Your task to perform on an android device: create a new album in the google photos Image 0: 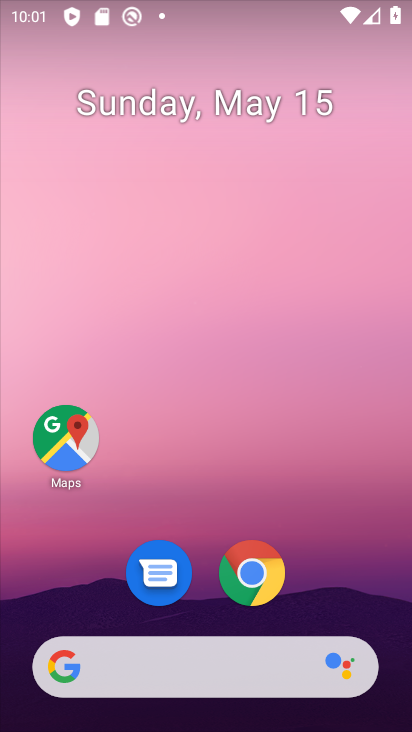
Step 0: drag from (191, 515) to (203, 233)
Your task to perform on an android device: create a new album in the google photos Image 1: 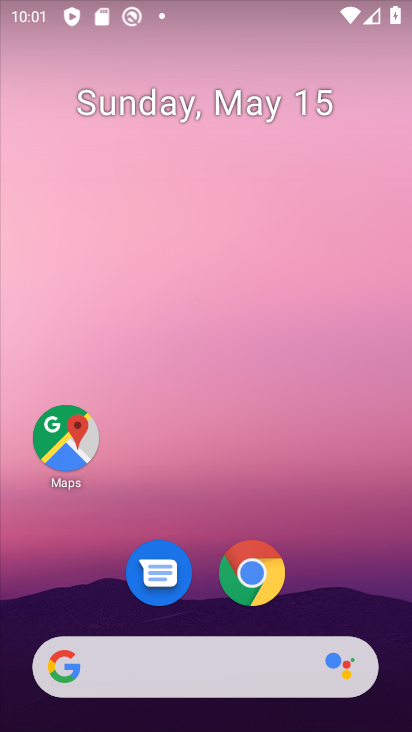
Step 1: drag from (214, 306) to (228, 204)
Your task to perform on an android device: create a new album in the google photos Image 2: 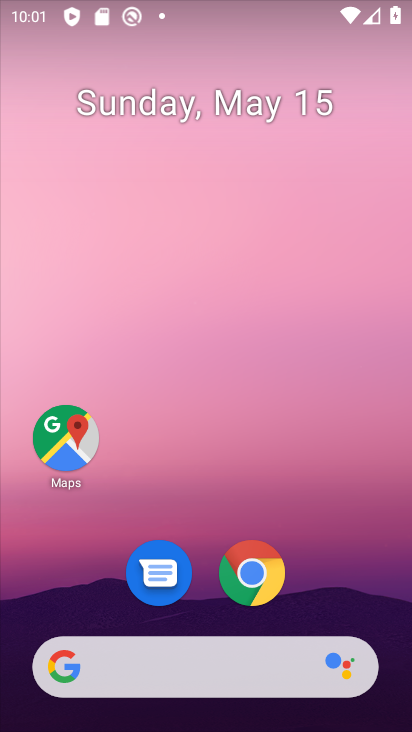
Step 2: drag from (219, 595) to (215, 153)
Your task to perform on an android device: create a new album in the google photos Image 3: 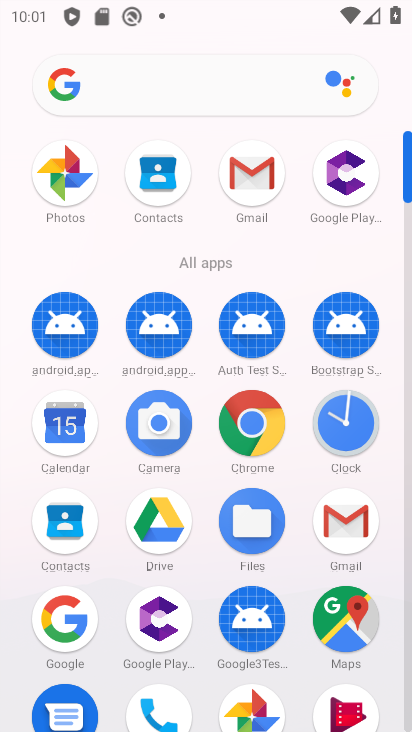
Step 3: click (74, 178)
Your task to perform on an android device: create a new album in the google photos Image 4: 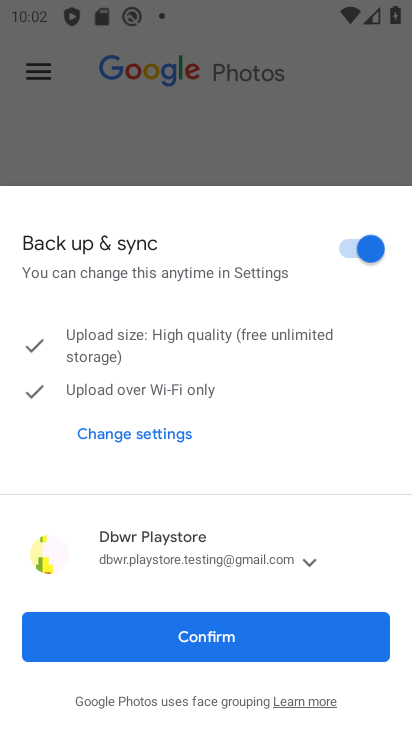
Step 4: click (193, 646)
Your task to perform on an android device: create a new album in the google photos Image 5: 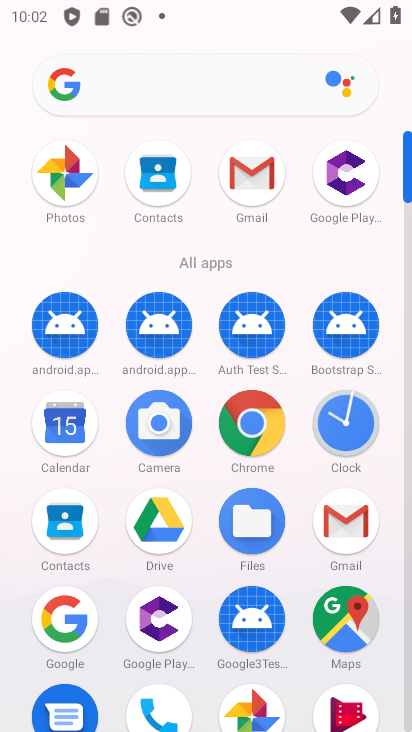
Step 5: click (255, 716)
Your task to perform on an android device: create a new album in the google photos Image 6: 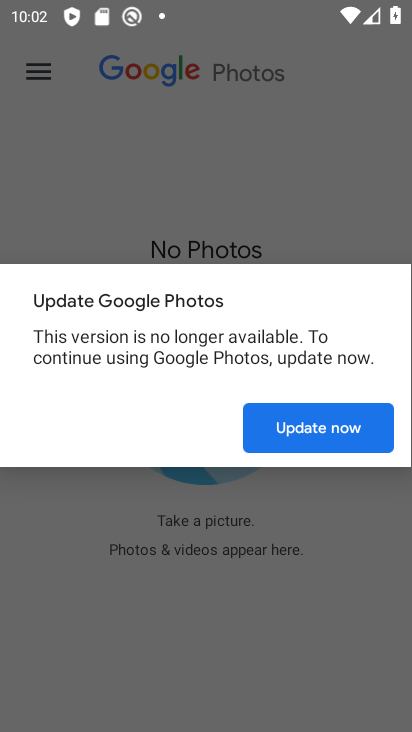
Step 6: click (327, 422)
Your task to perform on an android device: create a new album in the google photos Image 7: 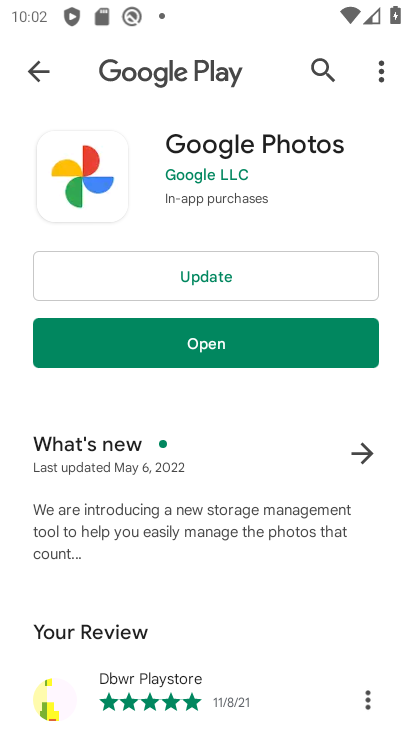
Step 7: click (194, 281)
Your task to perform on an android device: create a new album in the google photos Image 8: 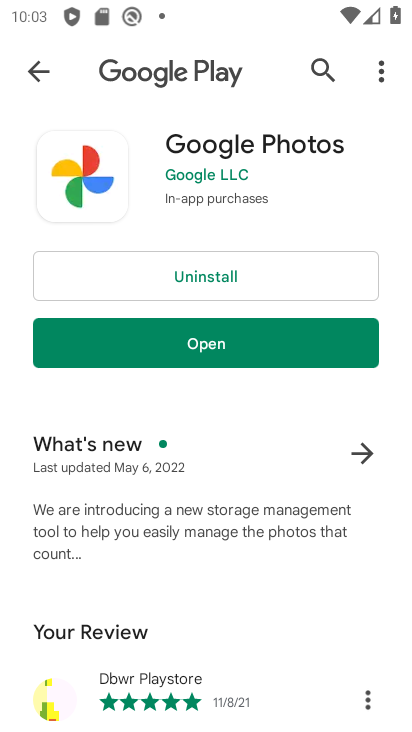
Step 8: click (209, 353)
Your task to perform on an android device: create a new album in the google photos Image 9: 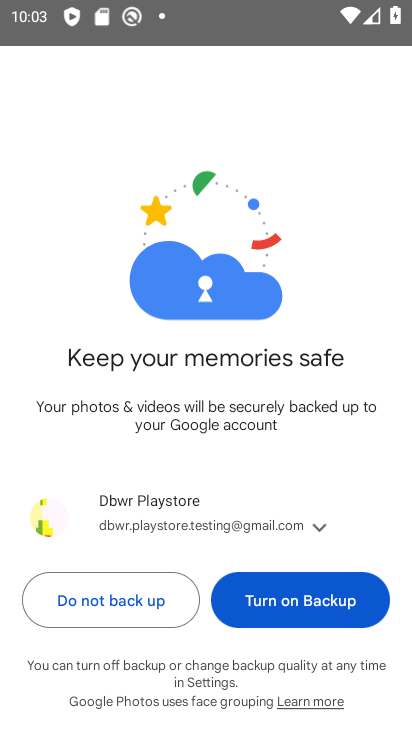
Step 9: click (291, 613)
Your task to perform on an android device: create a new album in the google photos Image 10: 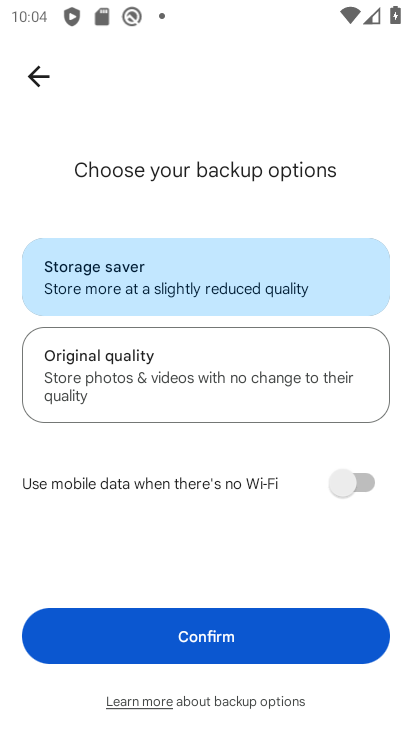
Step 10: click (283, 632)
Your task to perform on an android device: create a new album in the google photos Image 11: 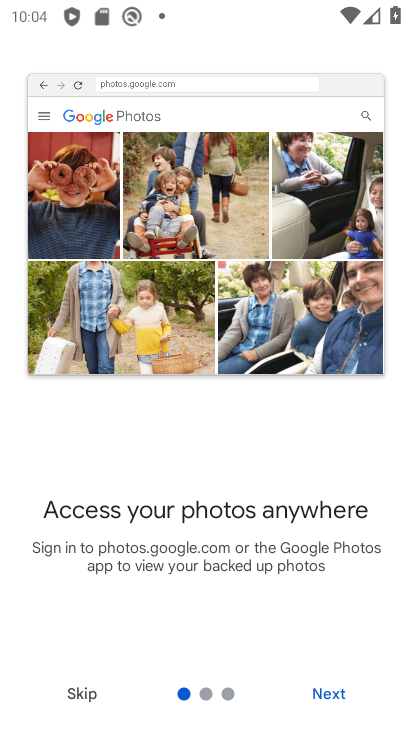
Step 11: click (329, 696)
Your task to perform on an android device: create a new album in the google photos Image 12: 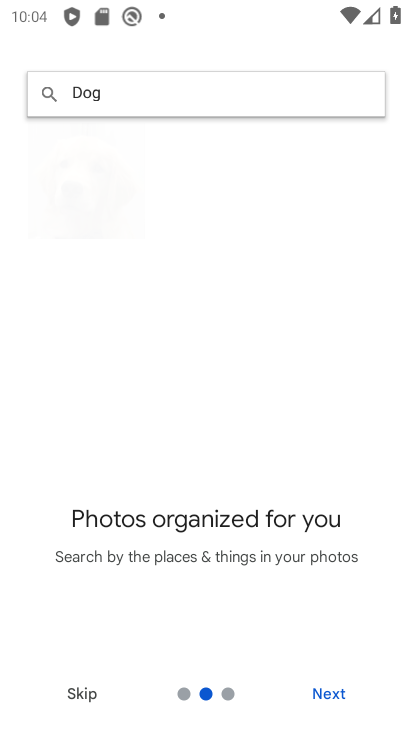
Step 12: click (340, 688)
Your task to perform on an android device: create a new album in the google photos Image 13: 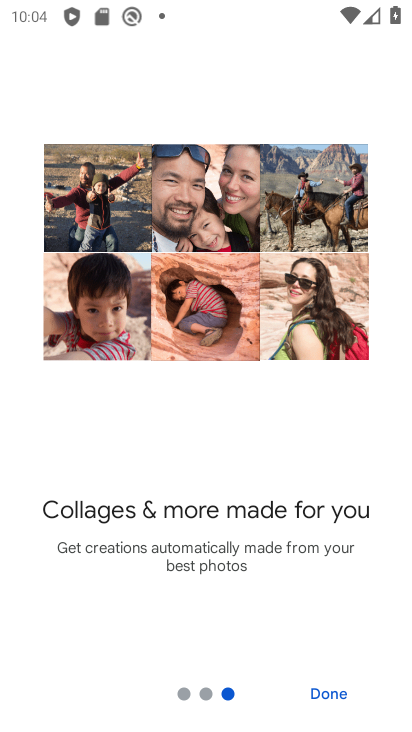
Step 13: click (332, 703)
Your task to perform on an android device: create a new album in the google photos Image 14: 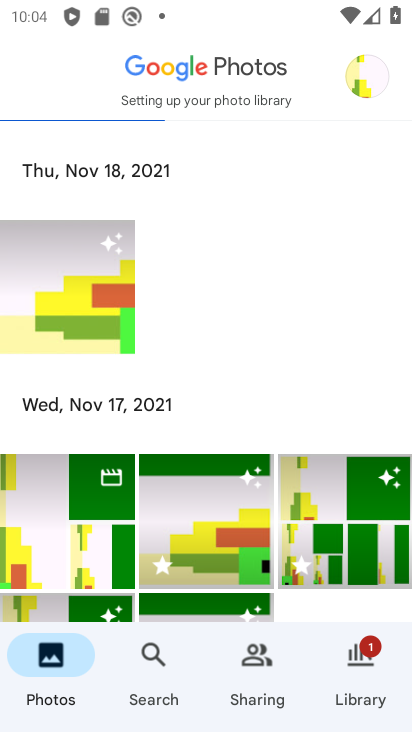
Step 14: click (367, 81)
Your task to perform on an android device: create a new album in the google photos Image 15: 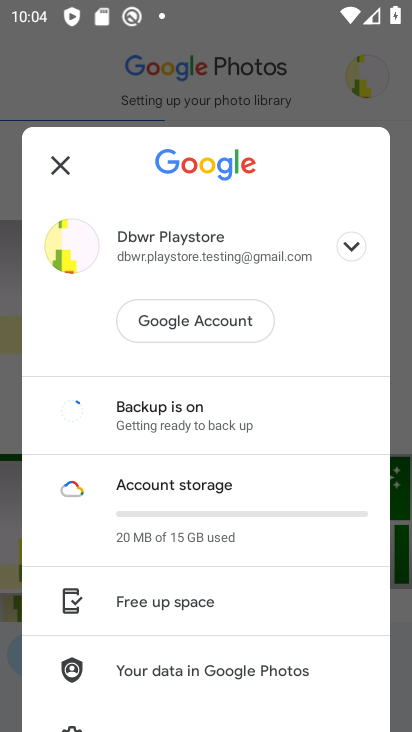
Step 15: click (149, 72)
Your task to perform on an android device: create a new album in the google photos Image 16: 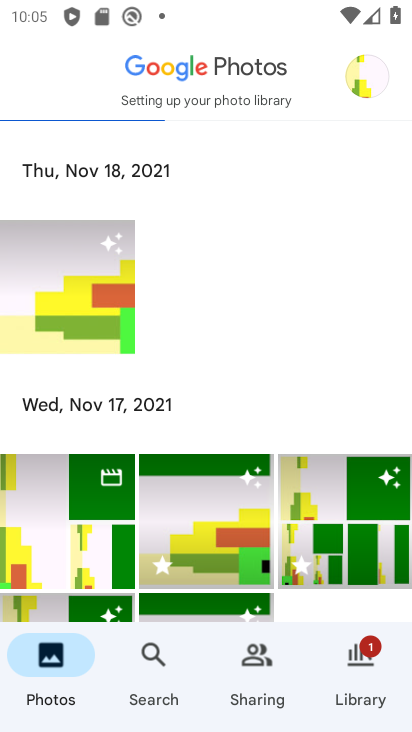
Step 16: click (353, 666)
Your task to perform on an android device: create a new album in the google photos Image 17: 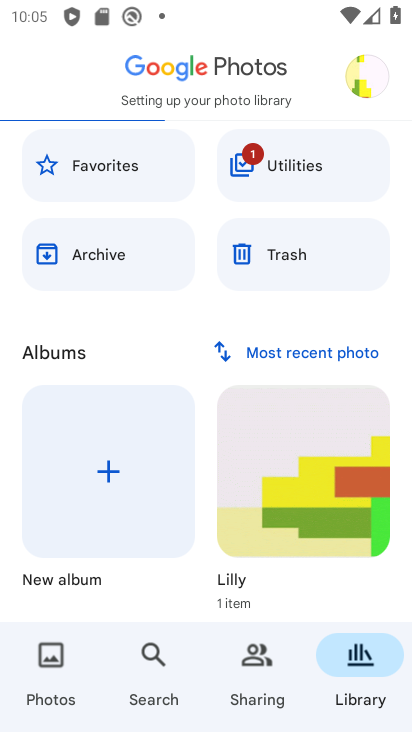
Step 17: click (66, 472)
Your task to perform on an android device: create a new album in the google photos Image 18: 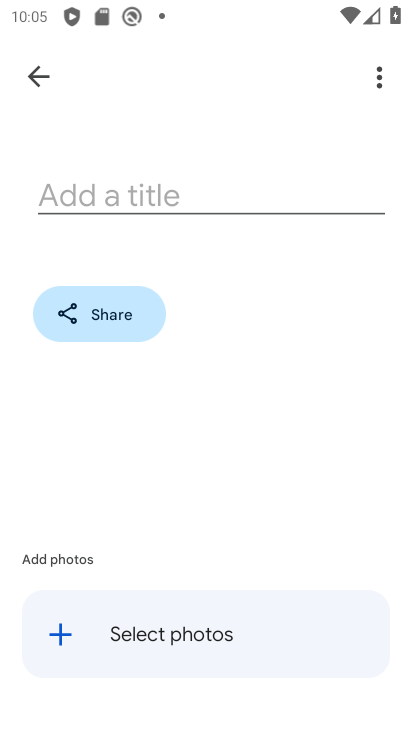
Step 18: click (104, 180)
Your task to perform on an android device: create a new album in the google photos Image 19: 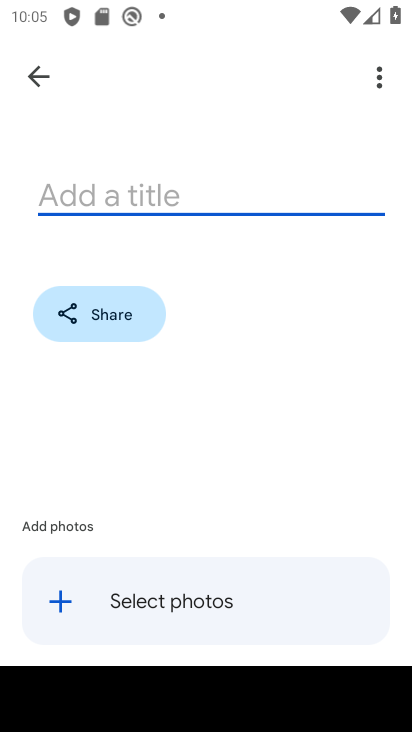
Step 19: type "rgg"
Your task to perform on an android device: create a new album in the google photos Image 20: 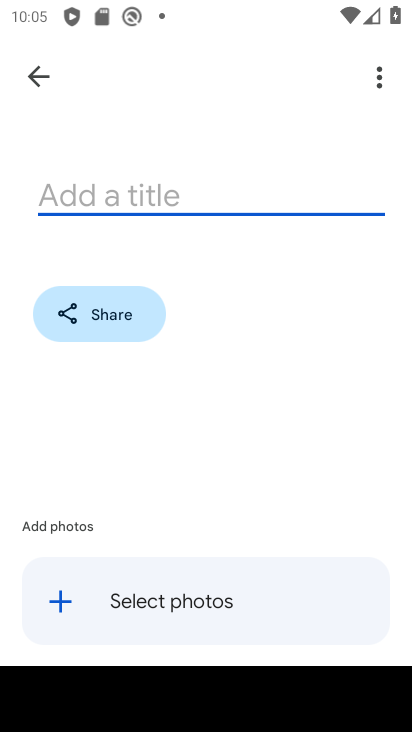
Step 20: click (84, 596)
Your task to perform on an android device: create a new album in the google photos Image 21: 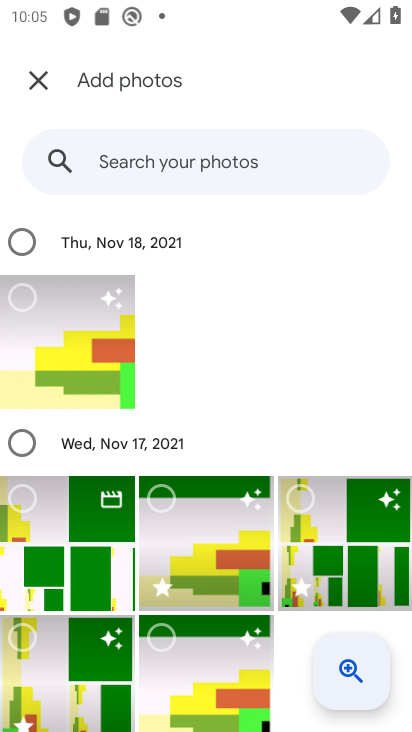
Step 21: click (169, 496)
Your task to perform on an android device: create a new album in the google photos Image 22: 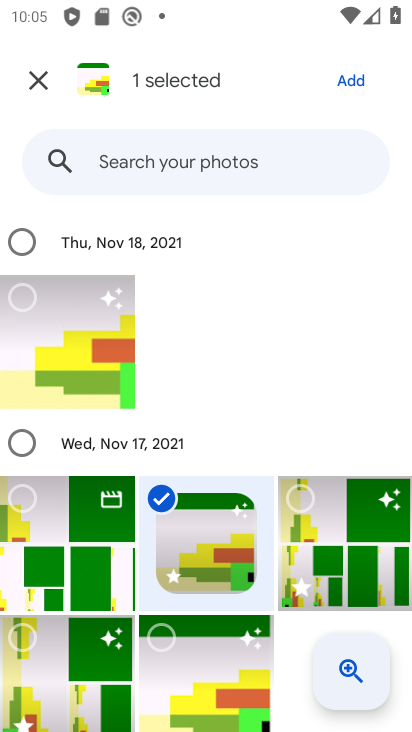
Step 22: click (354, 81)
Your task to perform on an android device: create a new album in the google photos Image 23: 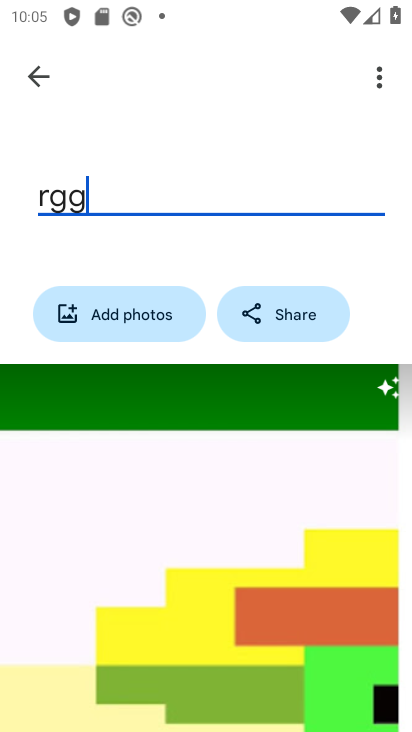
Step 23: task complete